Your task to perform on an android device: check data usage Image 0: 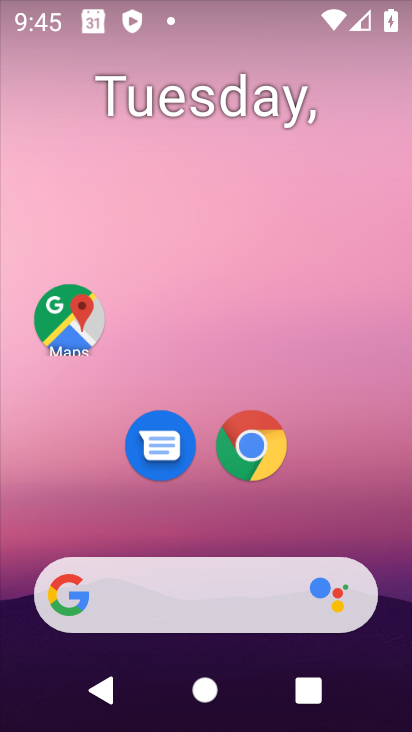
Step 0: drag from (211, 525) to (225, 36)
Your task to perform on an android device: check data usage Image 1: 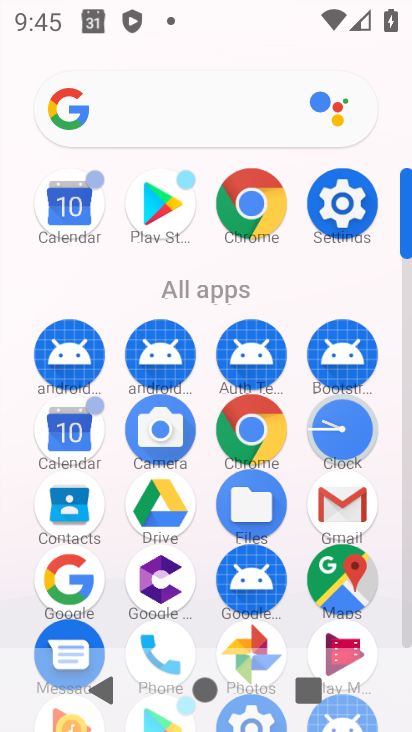
Step 1: click (336, 198)
Your task to perform on an android device: check data usage Image 2: 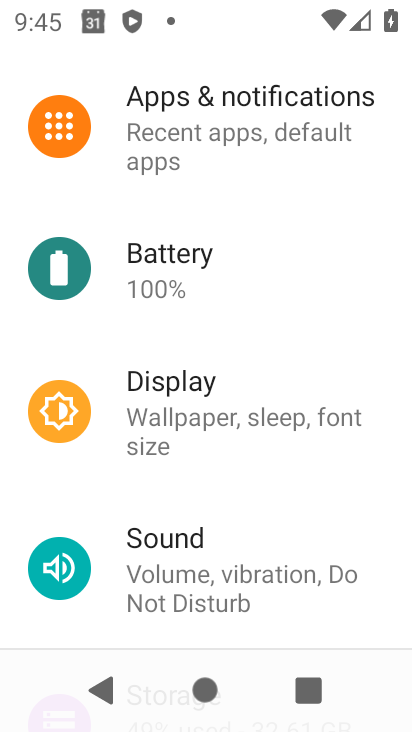
Step 2: drag from (205, 145) to (204, 630)
Your task to perform on an android device: check data usage Image 3: 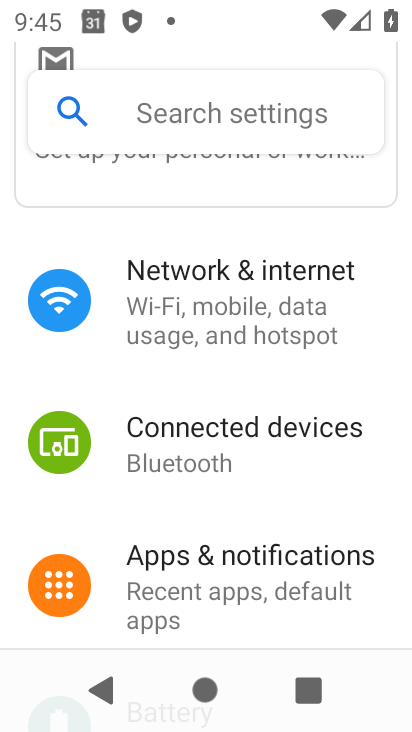
Step 3: click (206, 321)
Your task to perform on an android device: check data usage Image 4: 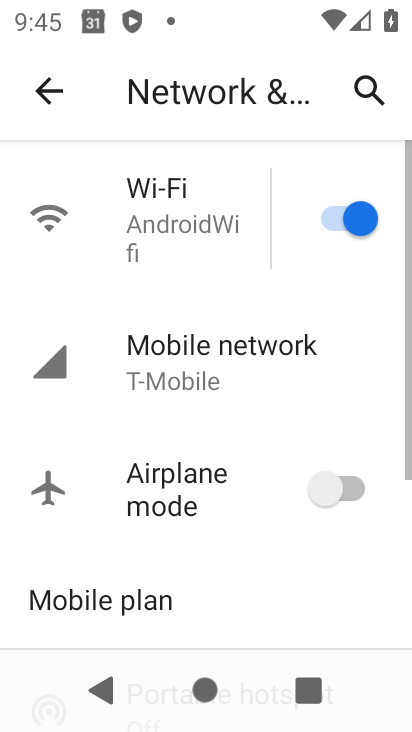
Step 4: drag from (153, 616) to (212, 140)
Your task to perform on an android device: check data usage Image 5: 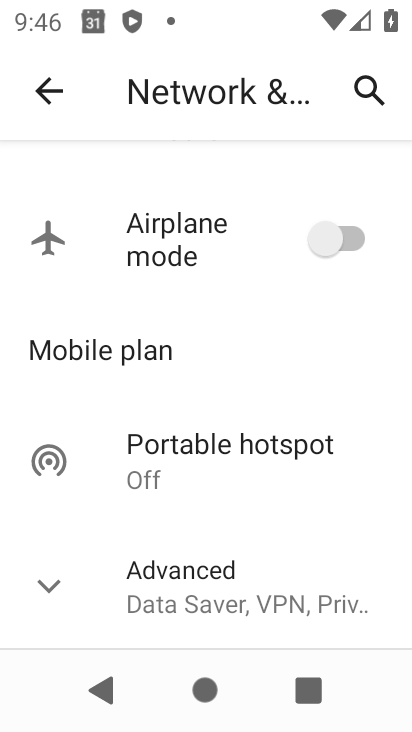
Step 5: drag from (145, 234) to (143, 620)
Your task to perform on an android device: check data usage Image 6: 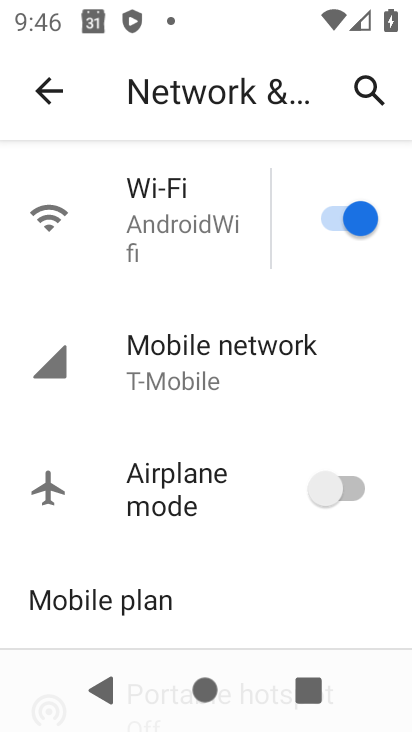
Step 6: click (143, 359)
Your task to perform on an android device: check data usage Image 7: 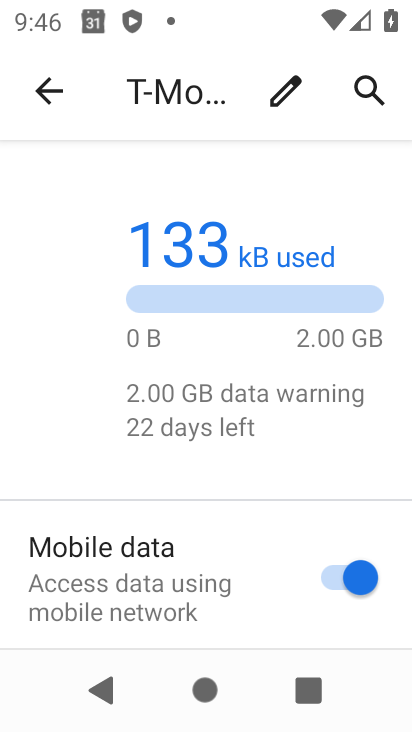
Step 7: drag from (207, 619) to (208, 386)
Your task to perform on an android device: check data usage Image 8: 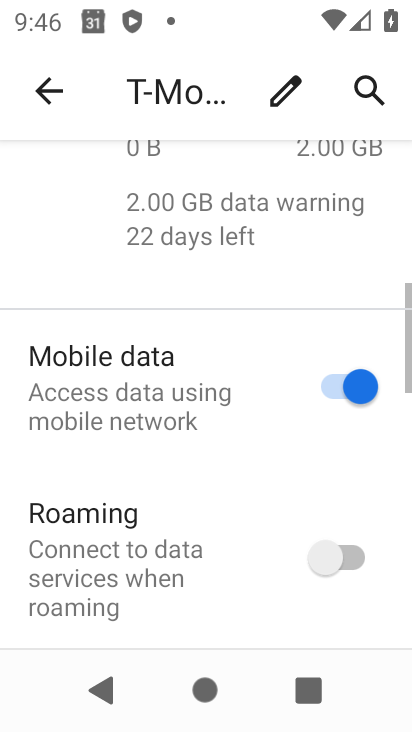
Step 8: drag from (208, 316) to (200, 270)
Your task to perform on an android device: check data usage Image 9: 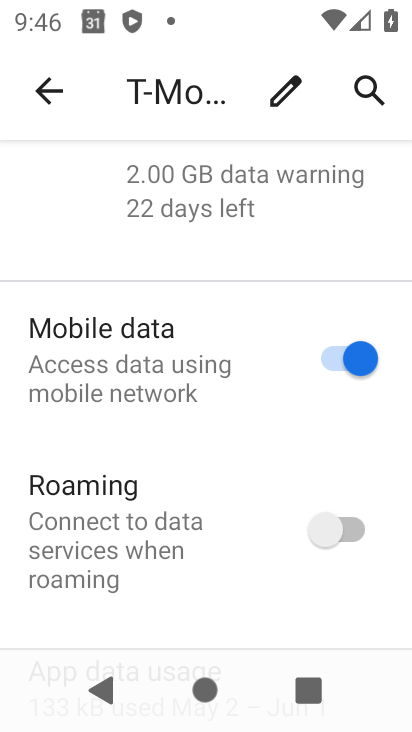
Step 9: drag from (179, 611) to (187, 298)
Your task to perform on an android device: check data usage Image 10: 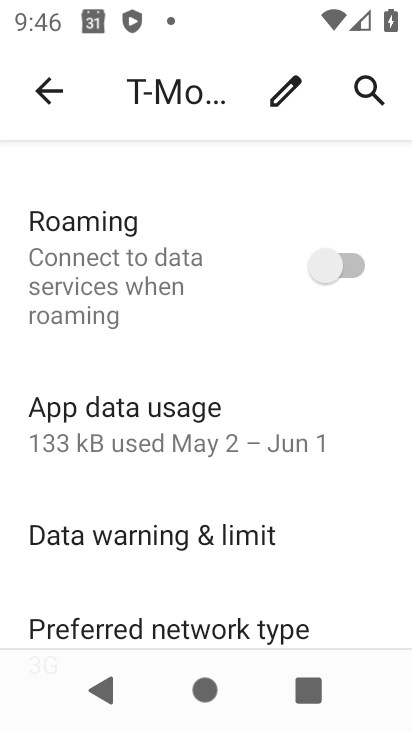
Step 10: click (230, 408)
Your task to perform on an android device: check data usage Image 11: 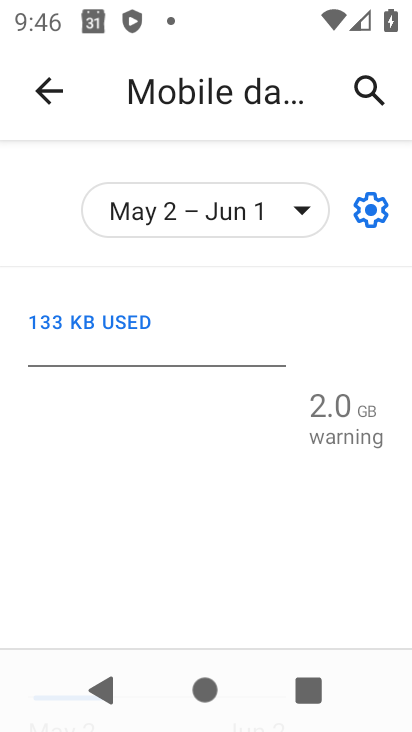
Step 11: task complete